Your task to perform on an android device: Clear the shopping cart on target. Add logitech g502 to the cart on target Image 0: 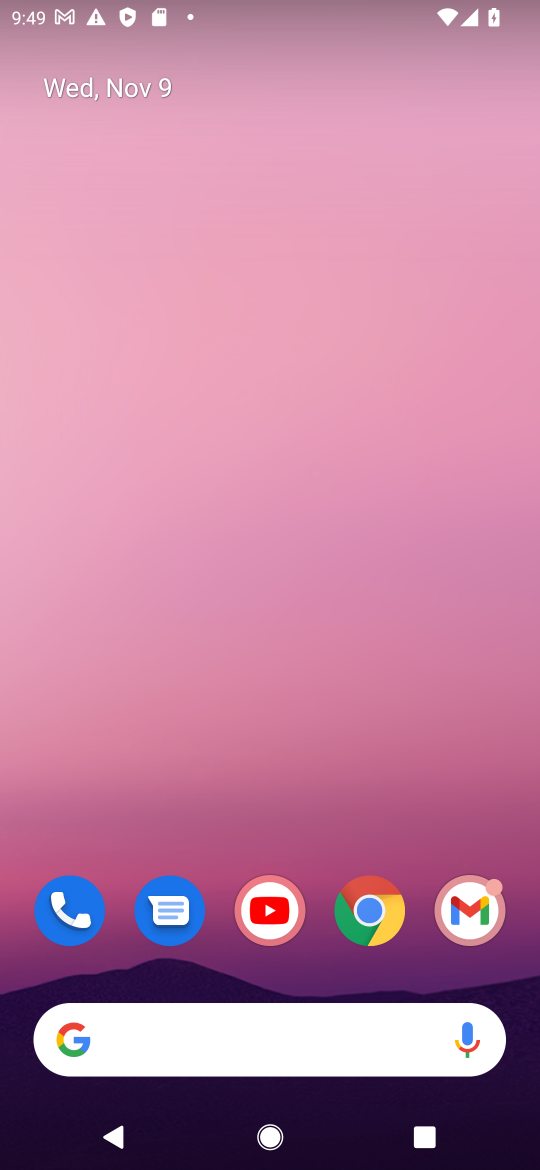
Step 0: click (363, 929)
Your task to perform on an android device: Clear the shopping cart on target. Add logitech g502 to the cart on target Image 1: 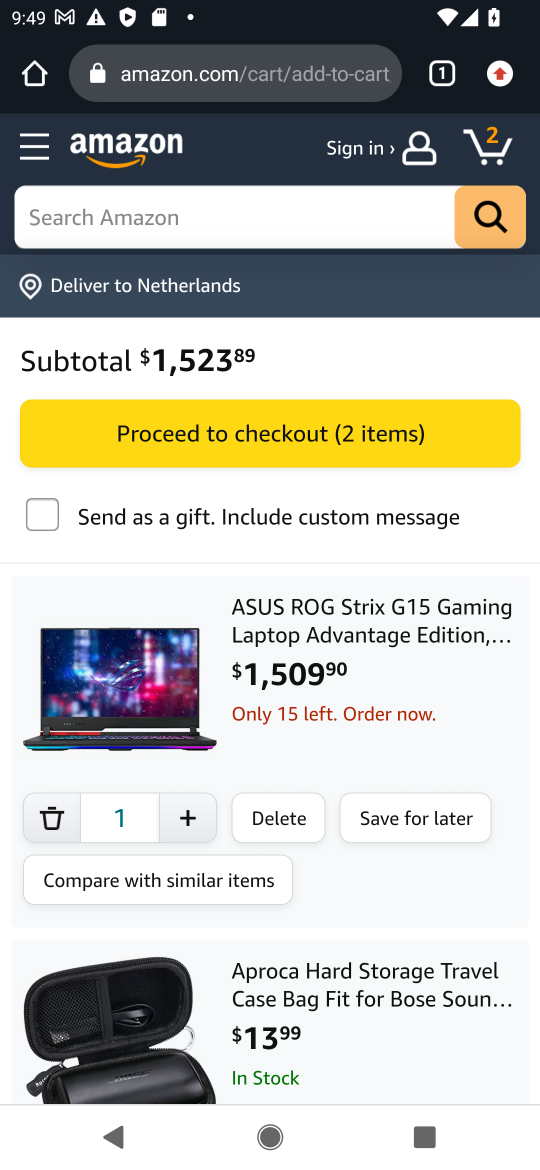
Step 1: click (195, 87)
Your task to perform on an android device: Clear the shopping cart on target. Add logitech g502 to the cart on target Image 2: 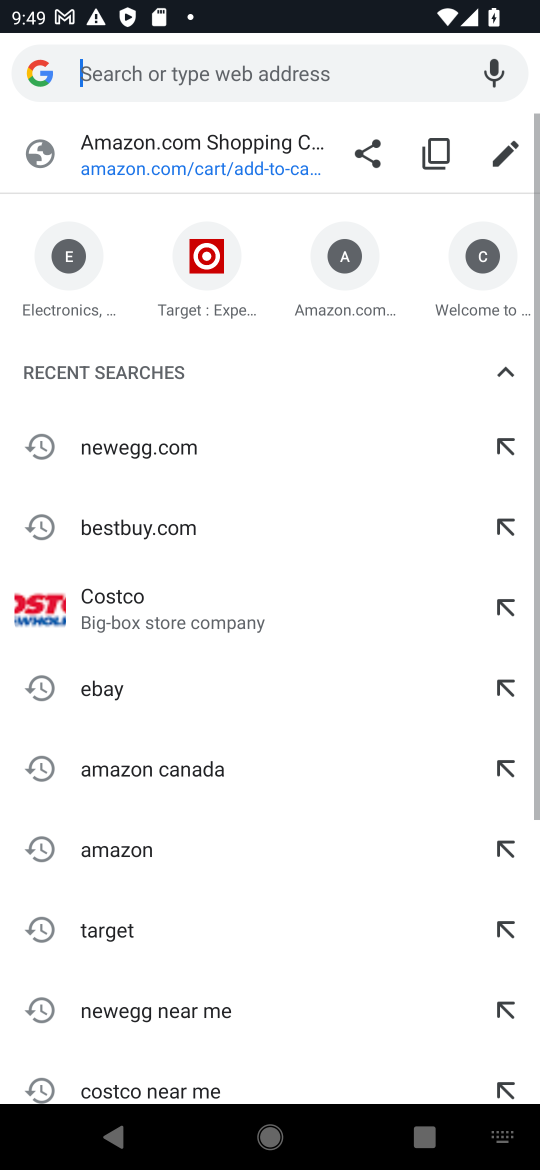
Step 2: click (208, 267)
Your task to perform on an android device: Clear the shopping cart on target. Add logitech g502 to the cart on target Image 3: 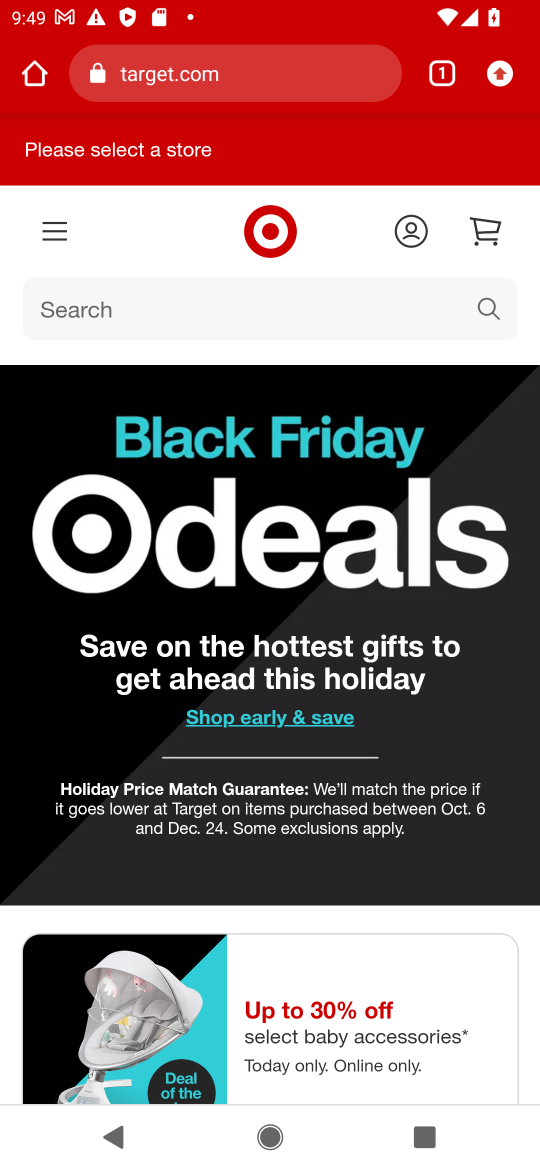
Step 3: click (494, 238)
Your task to perform on an android device: Clear the shopping cart on target. Add logitech g502 to the cart on target Image 4: 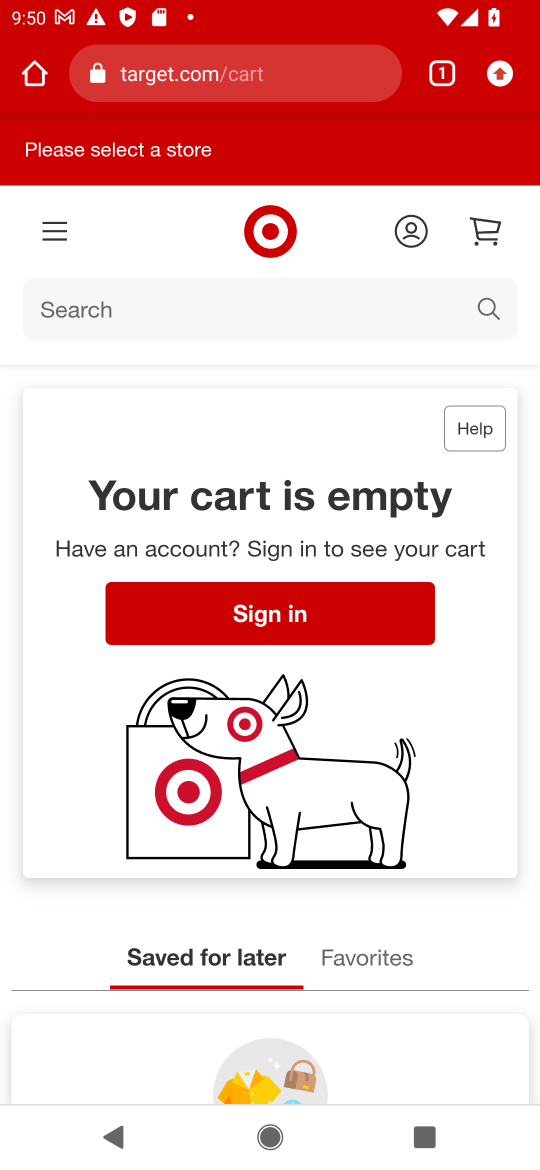
Step 4: click (487, 307)
Your task to perform on an android device: Clear the shopping cart on target. Add logitech g502 to the cart on target Image 5: 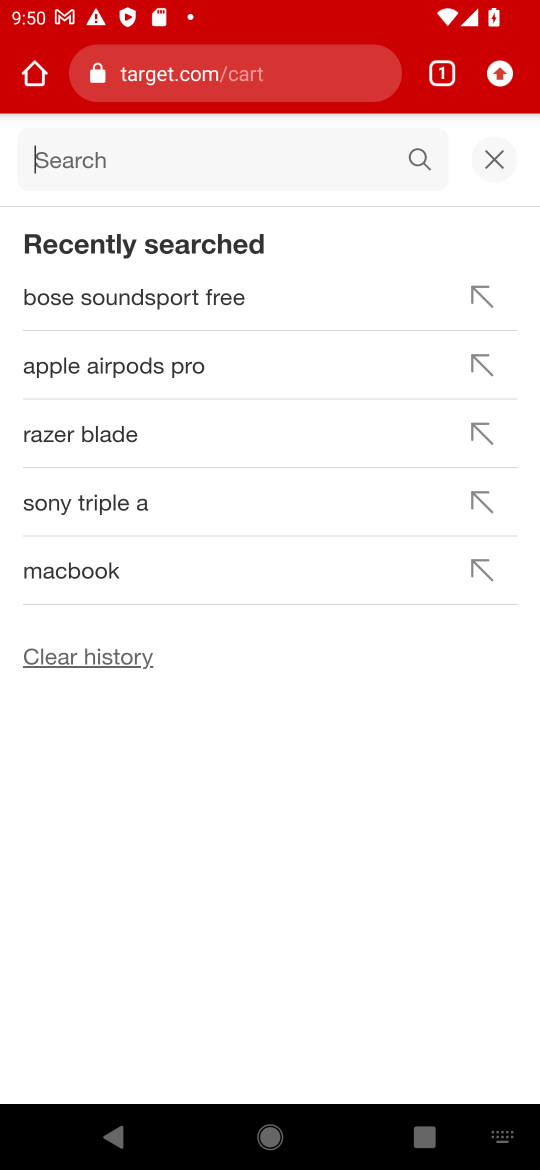
Step 5: type "logitech g502 "
Your task to perform on an android device: Clear the shopping cart on target. Add logitech g502 to the cart on target Image 6: 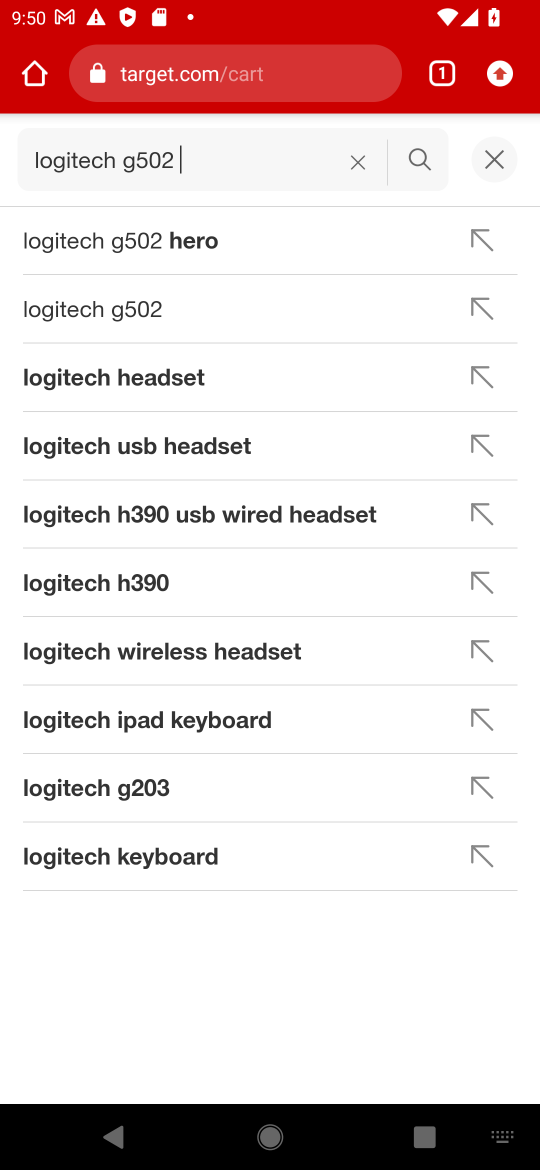
Step 6: click (118, 321)
Your task to perform on an android device: Clear the shopping cart on target. Add logitech g502 to the cart on target Image 7: 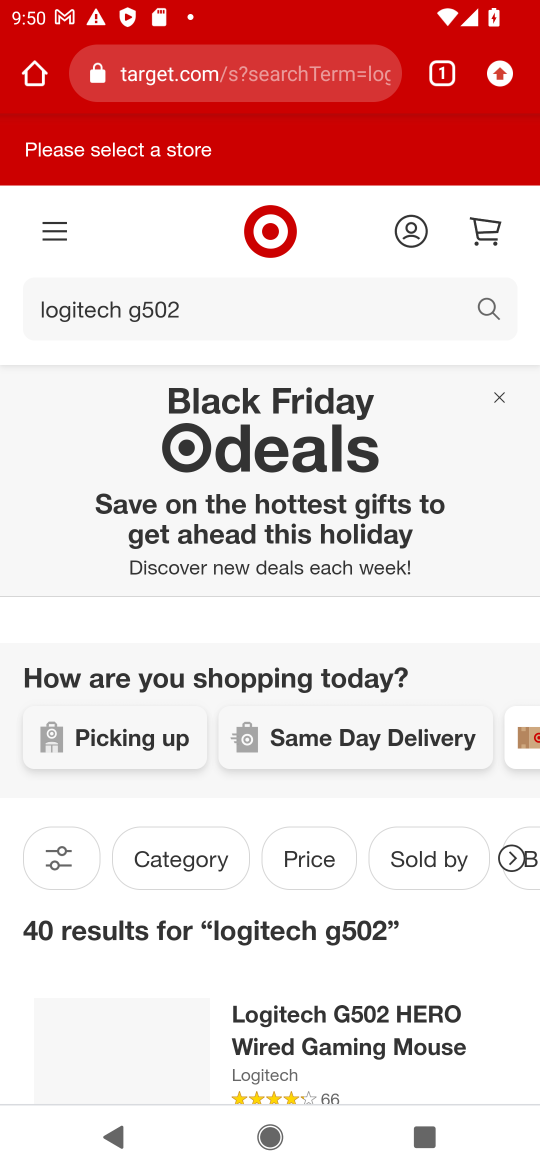
Step 7: drag from (281, 828) to (289, 357)
Your task to perform on an android device: Clear the shopping cart on target. Add logitech g502 to the cart on target Image 8: 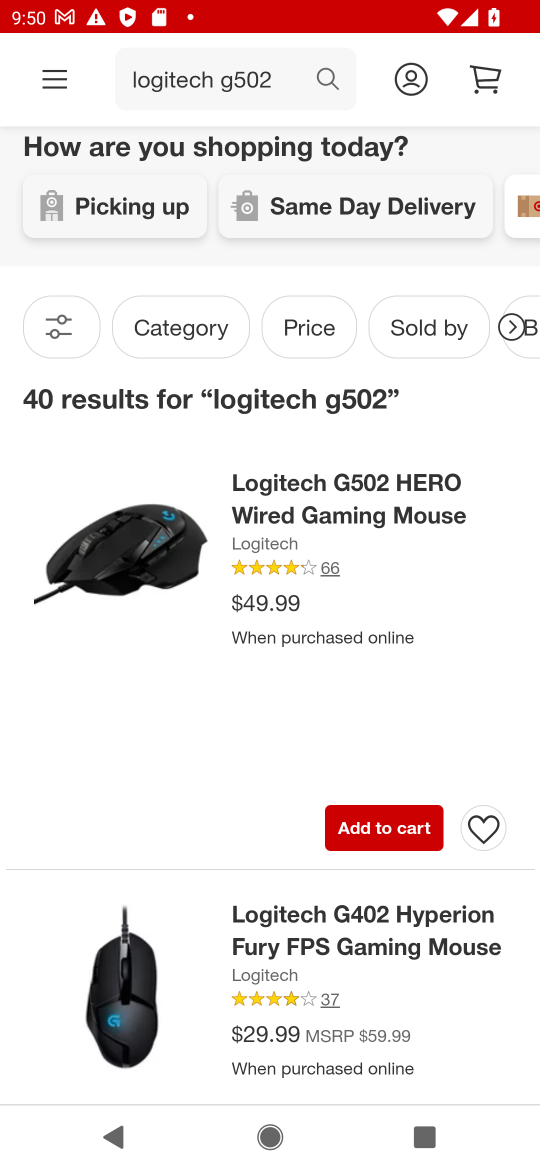
Step 8: click (355, 831)
Your task to perform on an android device: Clear the shopping cart on target. Add logitech g502 to the cart on target Image 9: 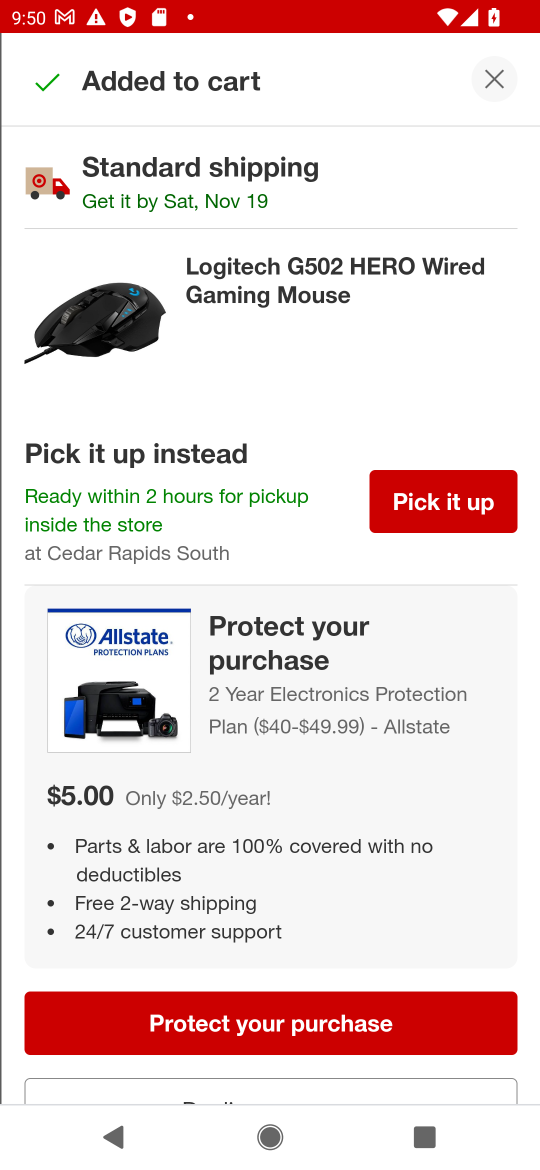
Step 9: task complete